Your task to perform on an android device: Go to battery settings Image 0: 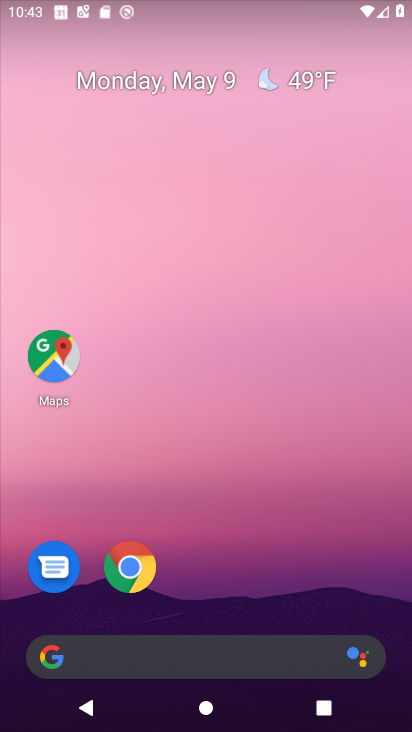
Step 0: drag from (173, 634) to (229, 182)
Your task to perform on an android device: Go to battery settings Image 1: 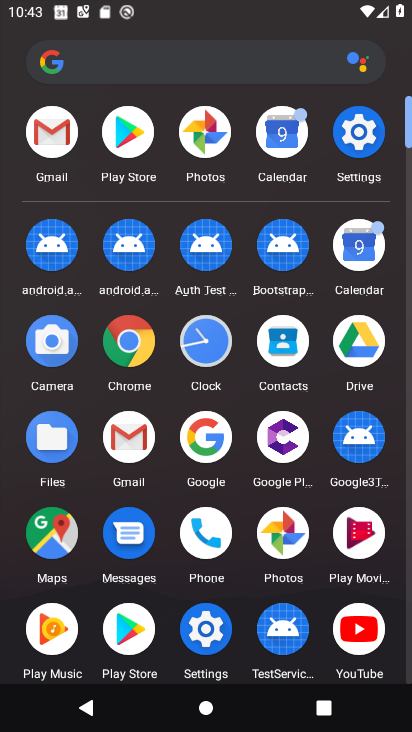
Step 1: click (361, 136)
Your task to perform on an android device: Go to battery settings Image 2: 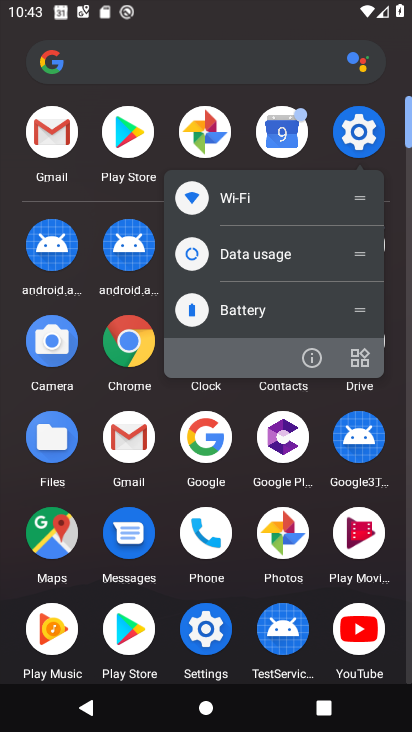
Step 2: click (360, 142)
Your task to perform on an android device: Go to battery settings Image 3: 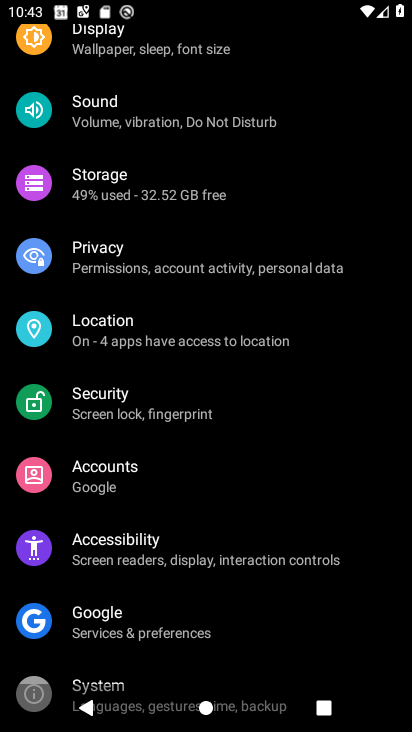
Step 3: drag from (134, 100) to (158, 534)
Your task to perform on an android device: Go to battery settings Image 4: 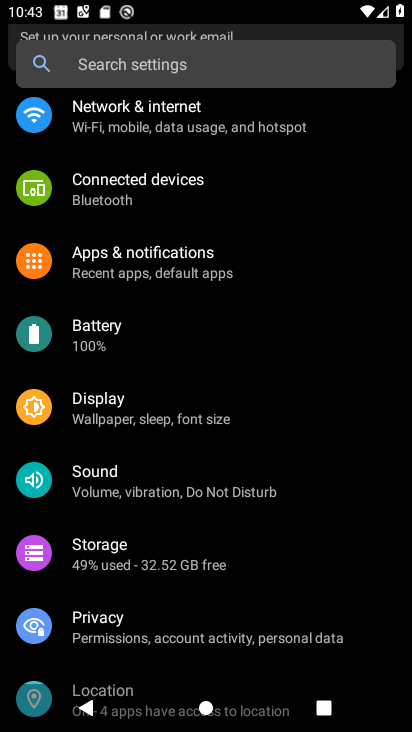
Step 4: click (95, 331)
Your task to perform on an android device: Go to battery settings Image 5: 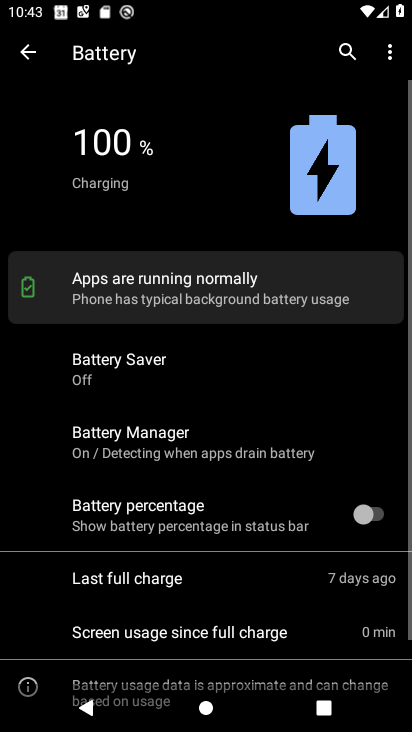
Step 5: task complete